Your task to perform on an android device: turn off improve location accuracy Image 0: 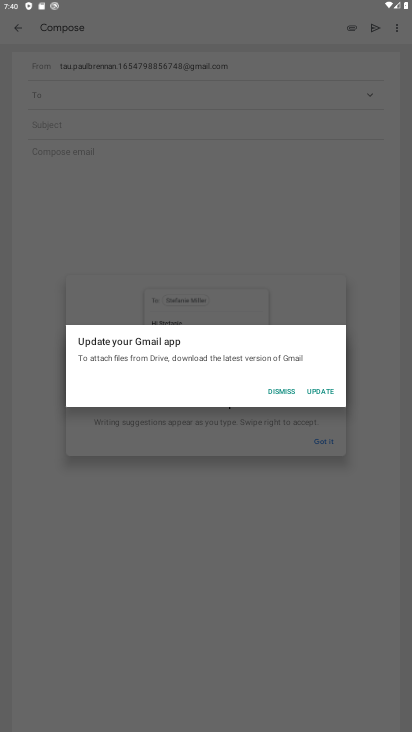
Step 0: click (274, 389)
Your task to perform on an android device: turn off improve location accuracy Image 1: 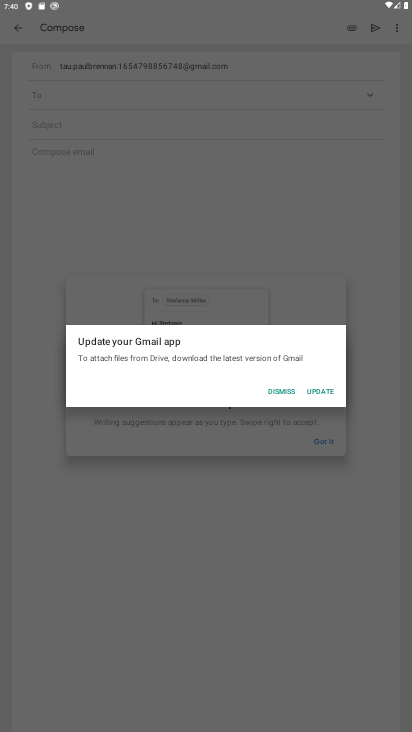
Step 1: click (275, 389)
Your task to perform on an android device: turn off improve location accuracy Image 2: 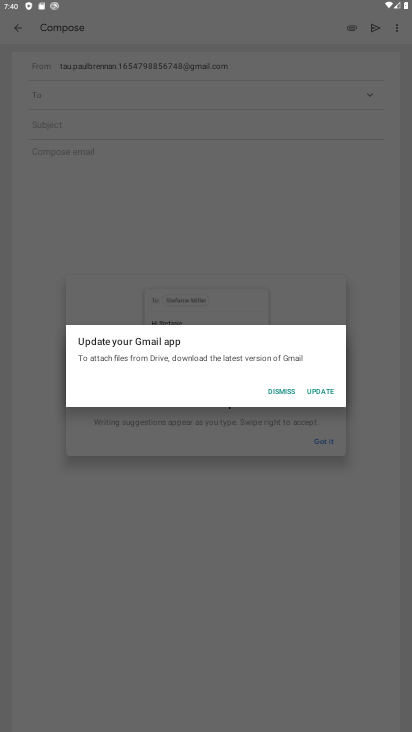
Step 2: click (276, 389)
Your task to perform on an android device: turn off improve location accuracy Image 3: 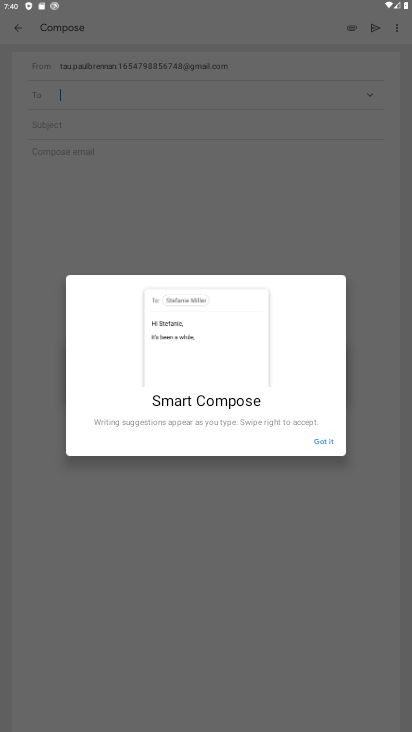
Step 3: click (329, 434)
Your task to perform on an android device: turn off improve location accuracy Image 4: 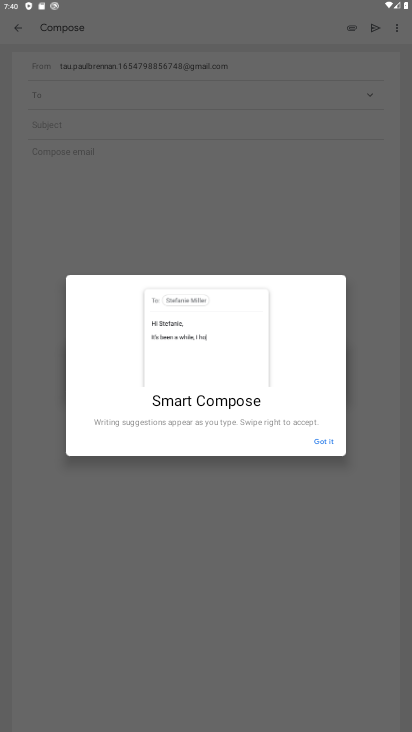
Step 4: click (331, 435)
Your task to perform on an android device: turn off improve location accuracy Image 5: 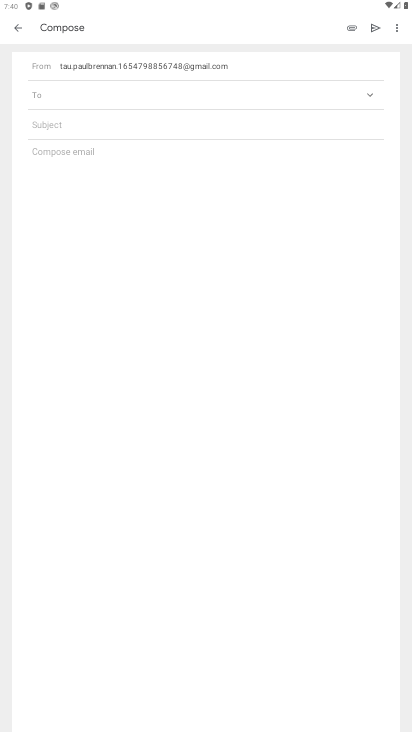
Step 5: press back button
Your task to perform on an android device: turn off improve location accuracy Image 6: 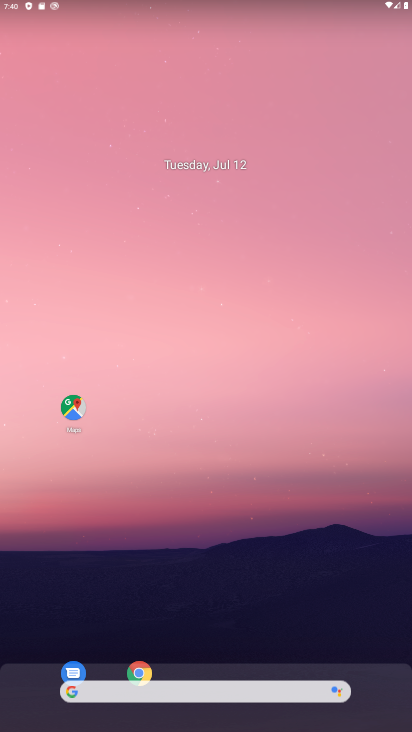
Step 6: drag from (264, 581) to (162, 32)
Your task to perform on an android device: turn off improve location accuracy Image 7: 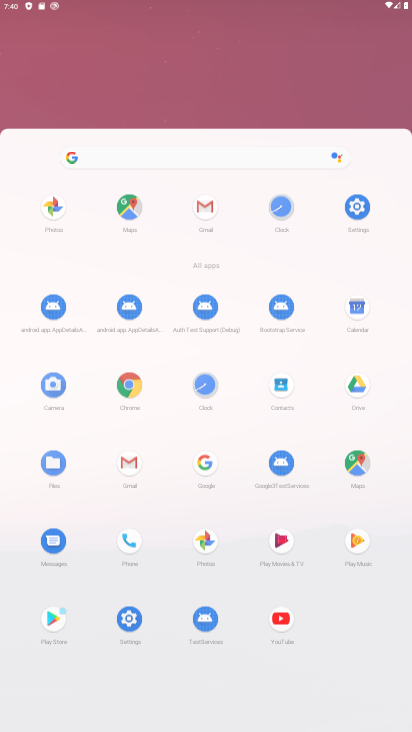
Step 7: drag from (281, 515) to (216, 98)
Your task to perform on an android device: turn off improve location accuracy Image 8: 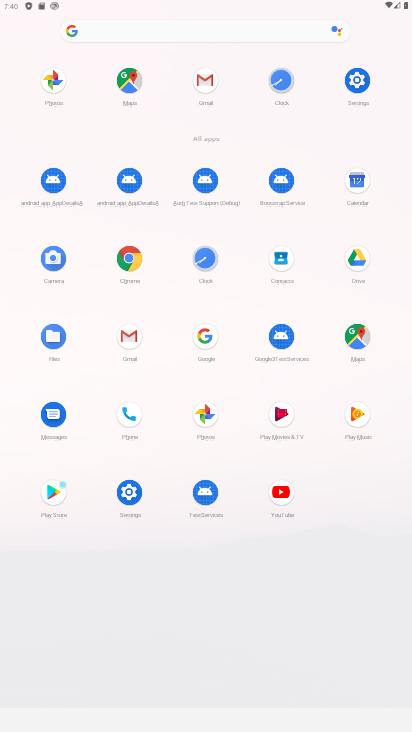
Step 8: drag from (186, 336) to (143, 144)
Your task to perform on an android device: turn off improve location accuracy Image 9: 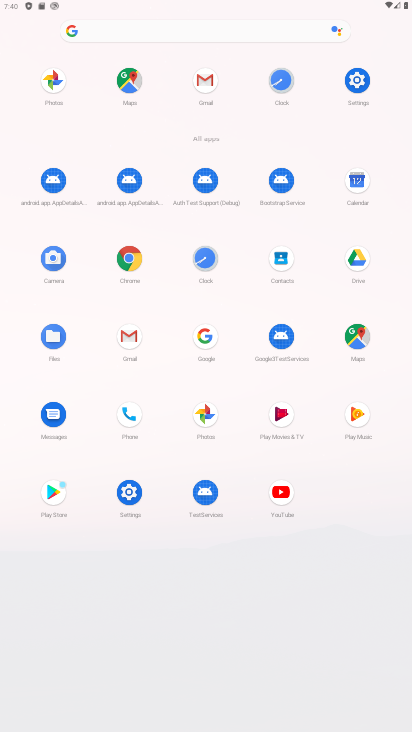
Step 9: click (125, 492)
Your task to perform on an android device: turn off improve location accuracy Image 10: 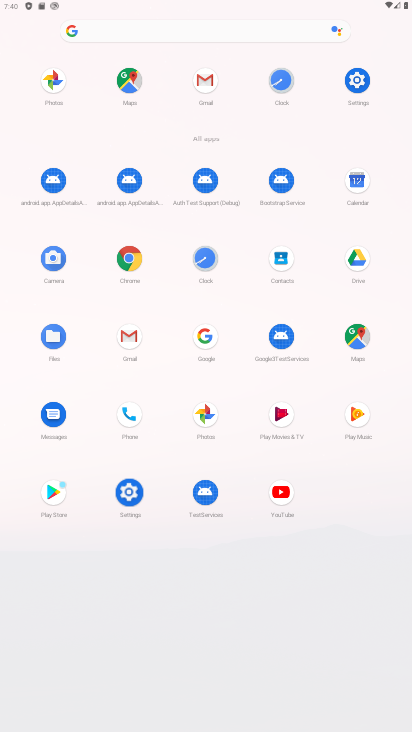
Step 10: click (133, 498)
Your task to perform on an android device: turn off improve location accuracy Image 11: 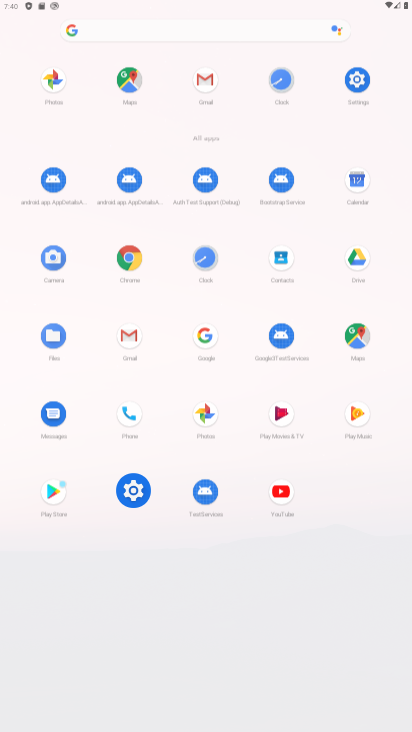
Step 11: click (133, 496)
Your task to perform on an android device: turn off improve location accuracy Image 12: 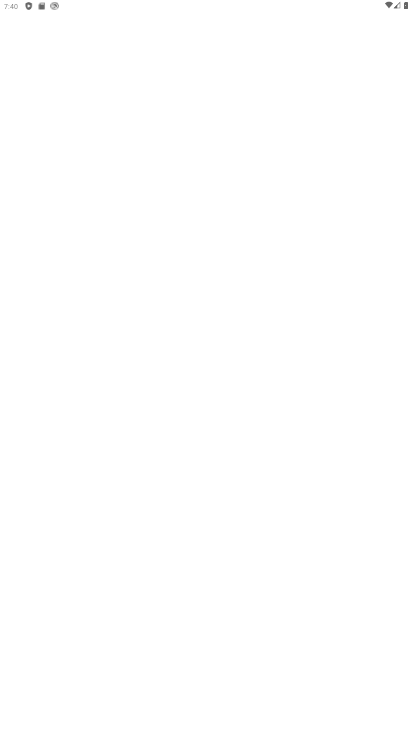
Step 12: click (135, 495)
Your task to perform on an android device: turn off improve location accuracy Image 13: 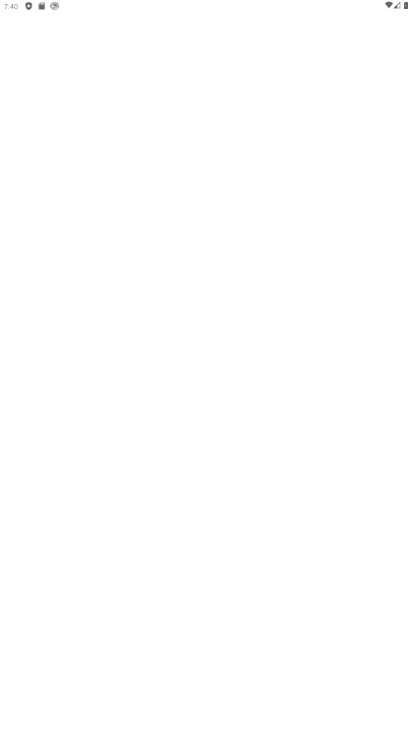
Step 13: click (137, 495)
Your task to perform on an android device: turn off improve location accuracy Image 14: 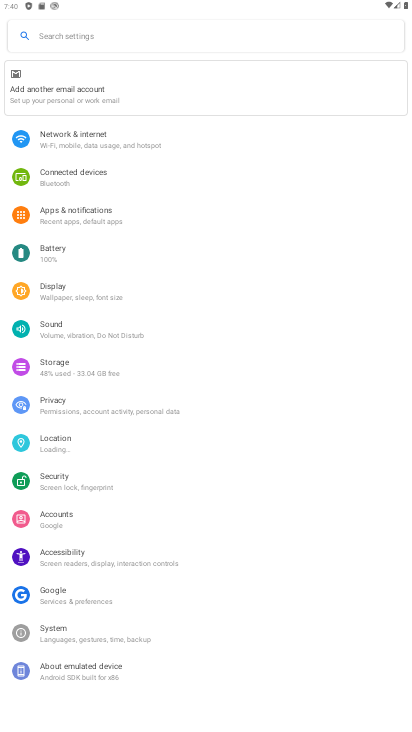
Step 14: click (54, 441)
Your task to perform on an android device: turn off improve location accuracy Image 15: 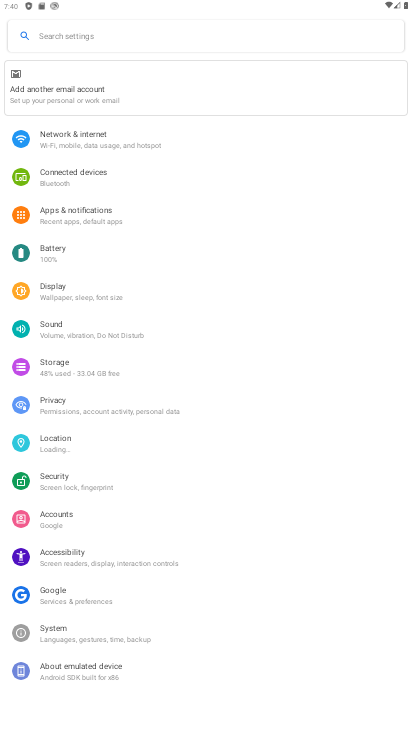
Step 15: click (54, 441)
Your task to perform on an android device: turn off improve location accuracy Image 16: 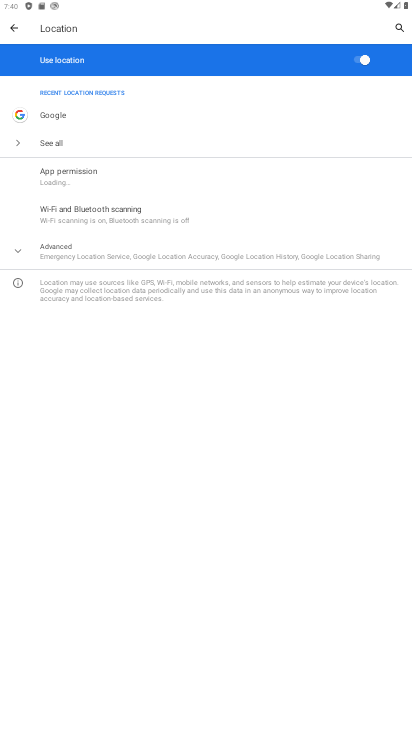
Step 16: click (149, 257)
Your task to perform on an android device: turn off improve location accuracy Image 17: 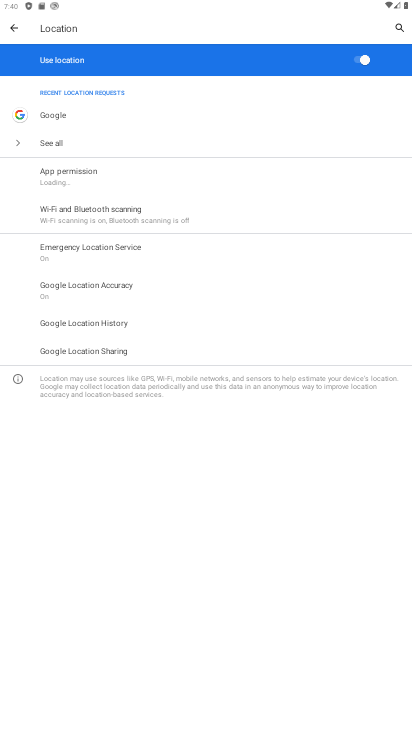
Step 17: click (97, 283)
Your task to perform on an android device: turn off improve location accuracy Image 18: 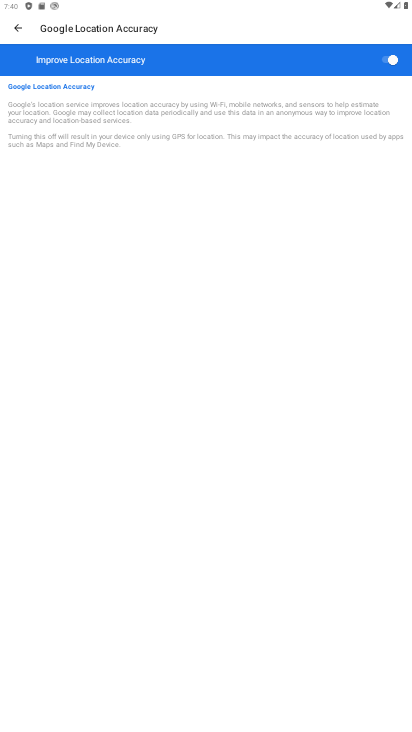
Step 18: click (394, 64)
Your task to perform on an android device: turn off improve location accuracy Image 19: 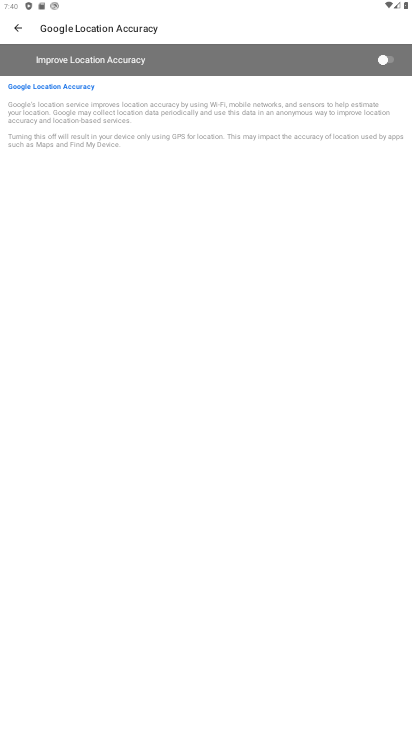
Step 19: task complete